Your task to perform on an android device: change the upload size in google photos Image 0: 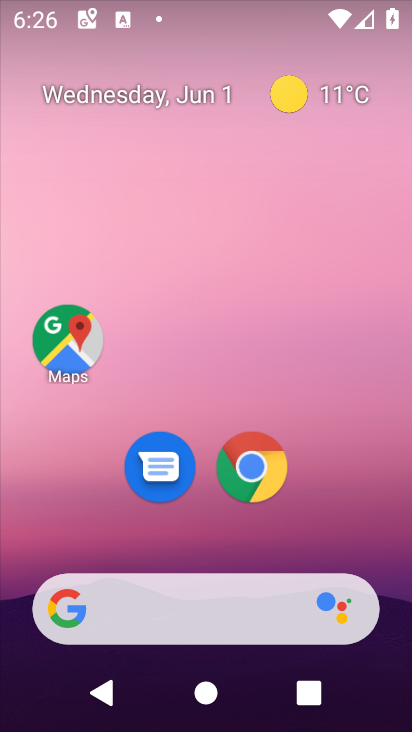
Step 0: drag from (355, 543) to (184, 23)
Your task to perform on an android device: change the upload size in google photos Image 1: 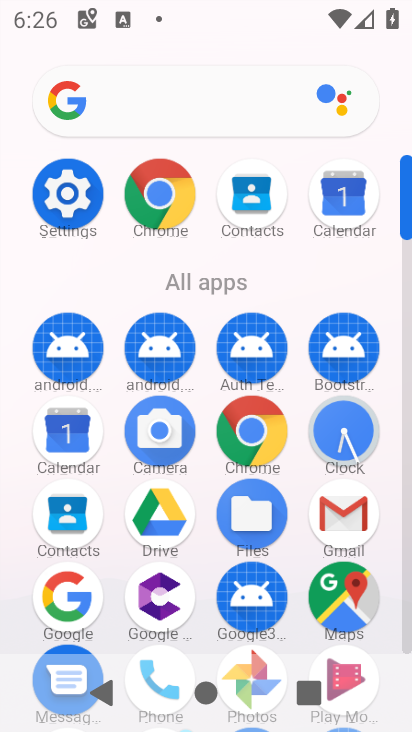
Step 1: drag from (227, 559) to (205, 203)
Your task to perform on an android device: change the upload size in google photos Image 2: 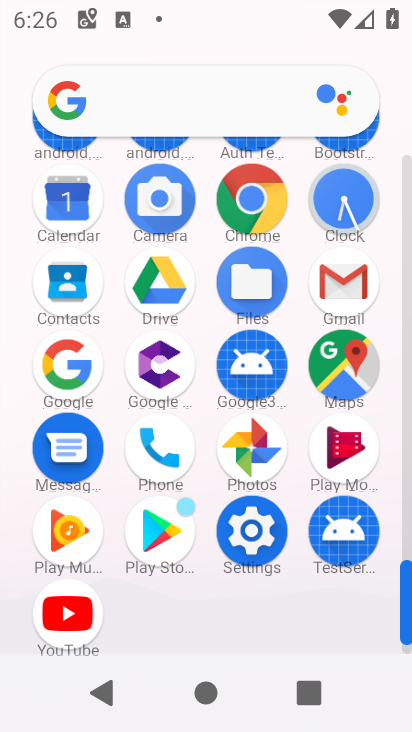
Step 2: click (266, 456)
Your task to perform on an android device: change the upload size in google photos Image 3: 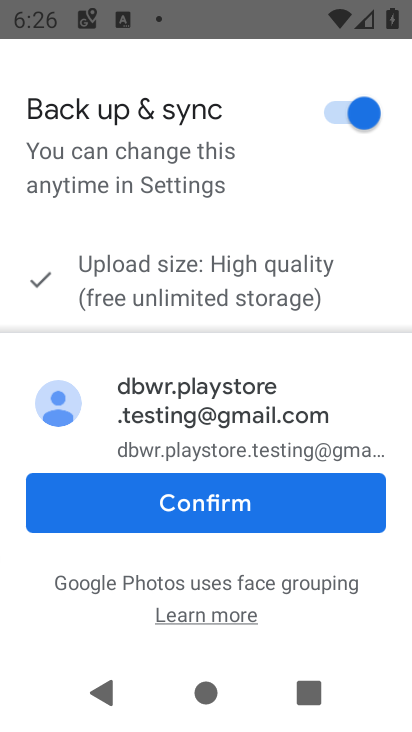
Step 3: click (254, 511)
Your task to perform on an android device: change the upload size in google photos Image 4: 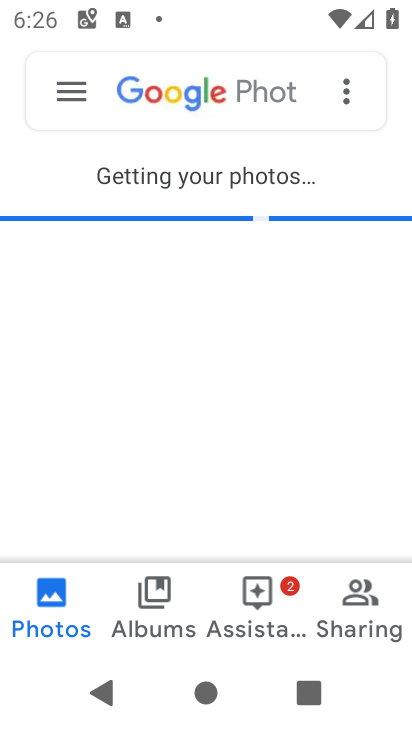
Step 4: click (59, 88)
Your task to perform on an android device: change the upload size in google photos Image 5: 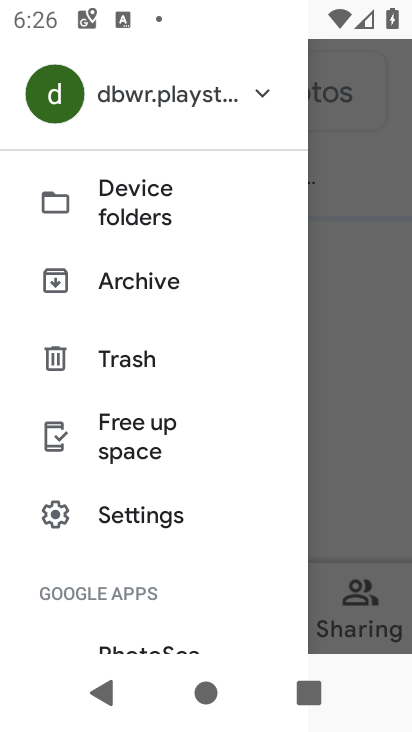
Step 5: click (164, 520)
Your task to perform on an android device: change the upload size in google photos Image 6: 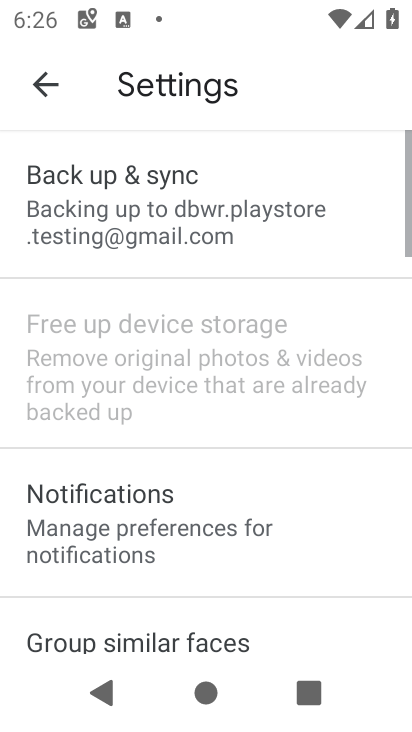
Step 6: click (139, 190)
Your task to perform on an android device: change the upload size in google photos Image 7: 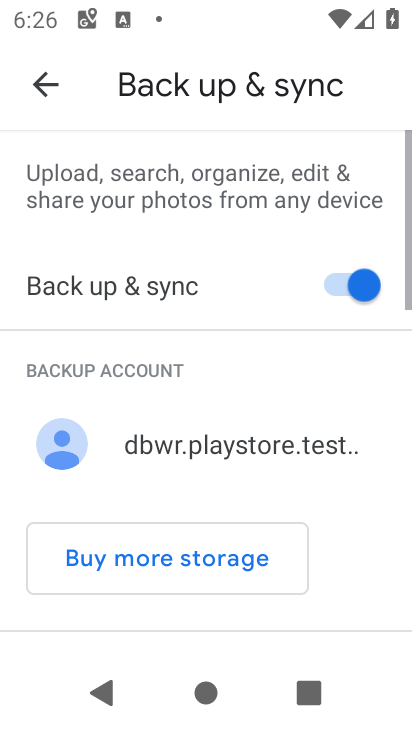
Step 7: drag from (218, 398) to (232, 99)
Your task to perform on an android device: change the upload size in google photos Image 8: 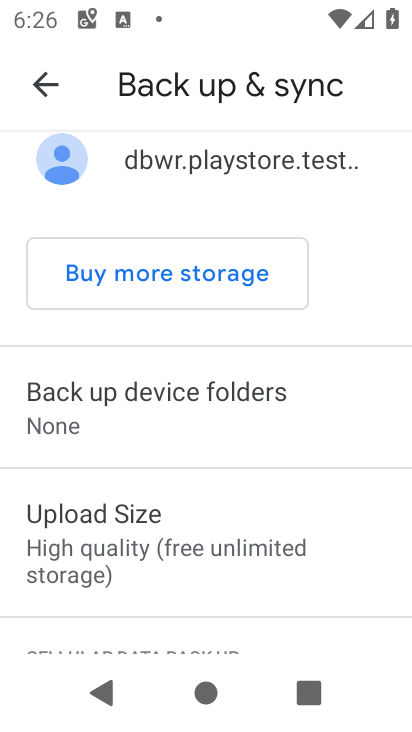
Step 8: click (141, 516)
Your task to perform on an android device: change the upload size in google photos Image 9: 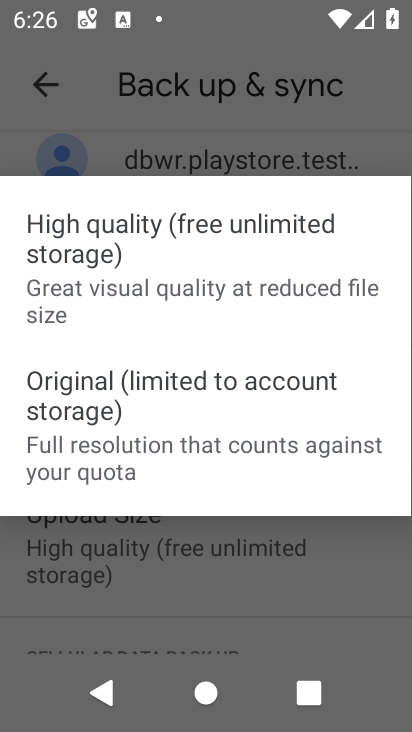
Step 9: click (158, 398)
Your task to perform on an android device: change the upload size in google photos Image 10: 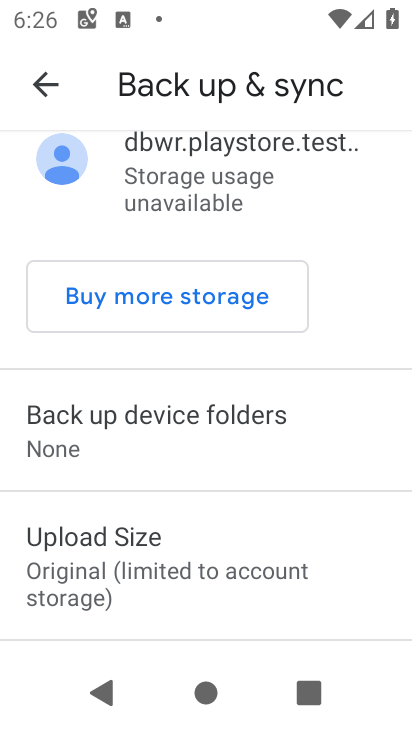
Step 10: task complete